Your task to perform on an android device: check data usage Image 0: 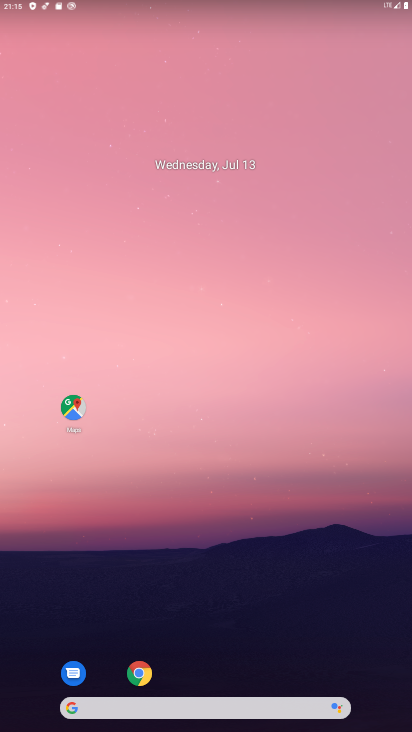
Step 0: drag from (180, 656) to (172, 199)
Your task to perform on an android device: check data usage Image 1: 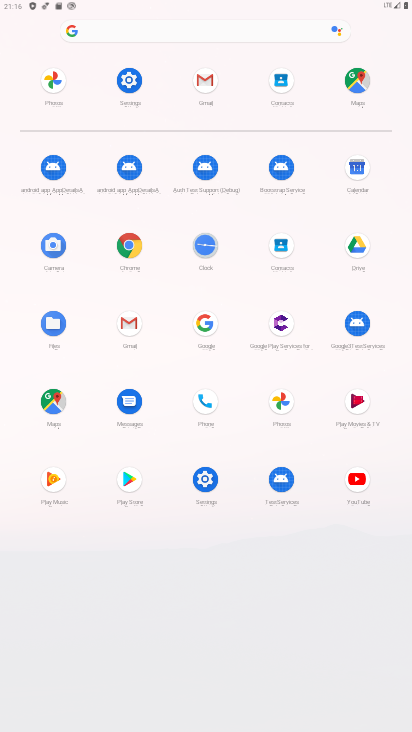
Step 1: click (209, 473)
Your task to perform on an android device: check data usage Image 2: 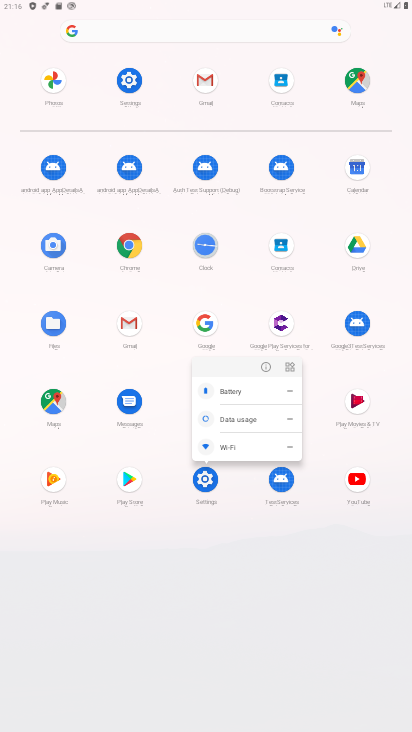
Step 2: click (270, 367)
Your task to perform on an android device: check data usage Image 3: 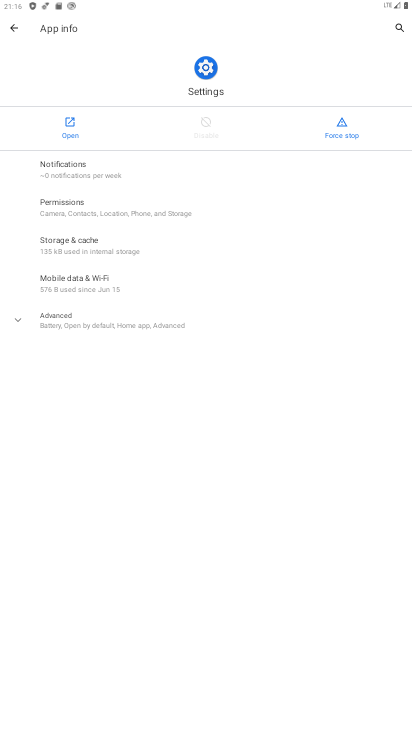
Step 3: click (63, 124)
Your task to perform on an android device: check data usage Image 4: 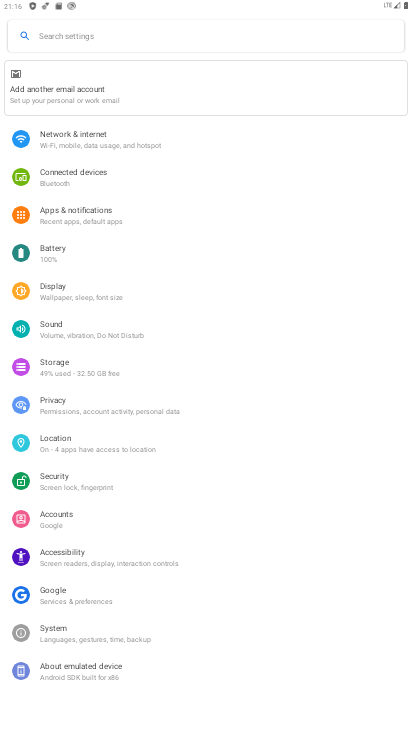
Step 4: click (100, 134)
Your task to perform on an android device: check data usage Image 5: 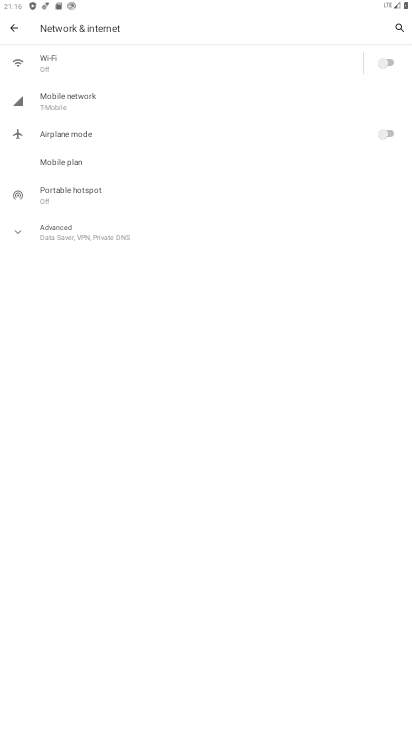
Step 5: click (98, 102)
Your task to perform on an android device: check data usage Image 6: 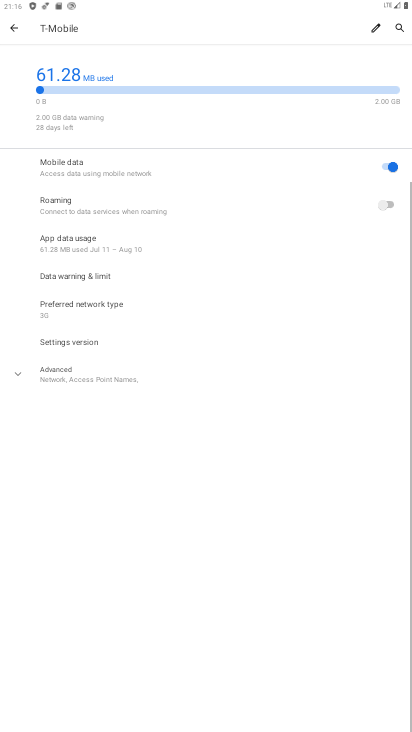
Step 6: task complete